Your task to perform on an android device: open sync settings in chrome Image 0: 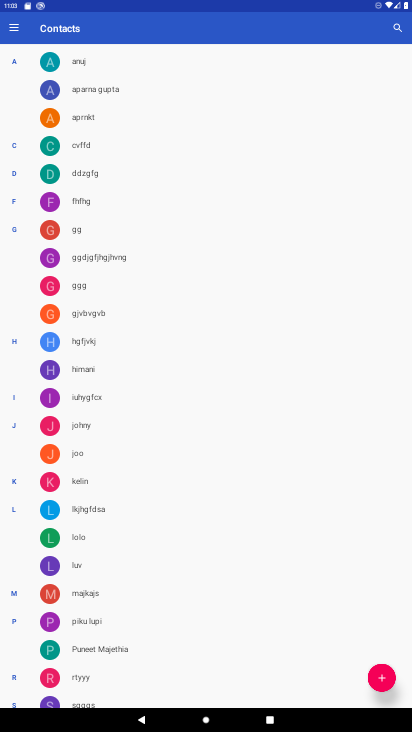
Step 0: press home button
Your task to perform on an android device: open sync settings in chrome Image 1: 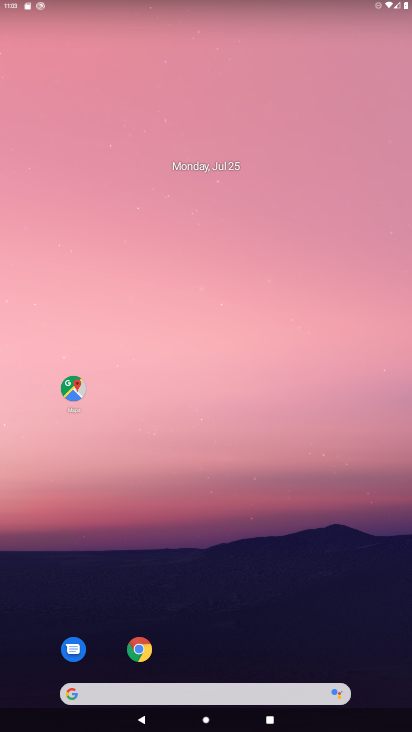
Step 1: click (143, 651)
Your task to perform on an android device: open sync settings in chrome Image 2: 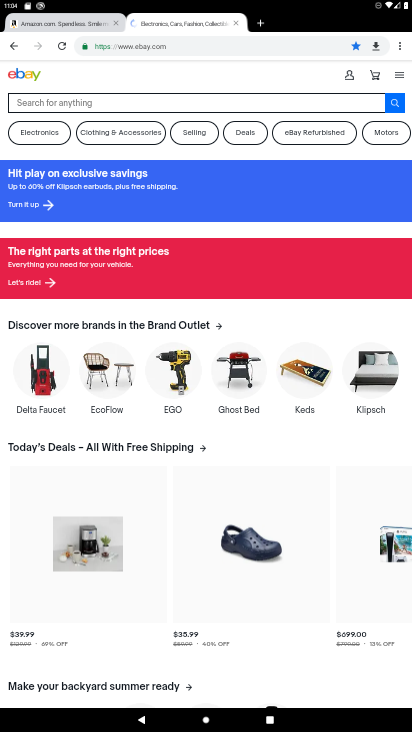
Step 2: click (397, 48)
Your task to perform on an android device: open sync settings in chrome Image 3: 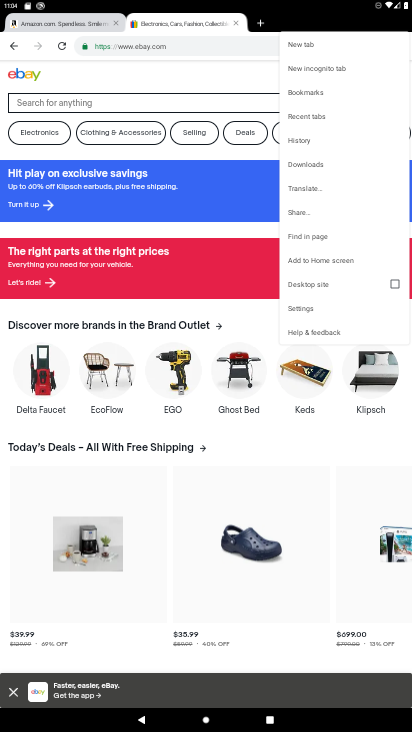
Step 3: click (304, 298)
Your task to perform on an android device: open sync settings in chrome Image 4: 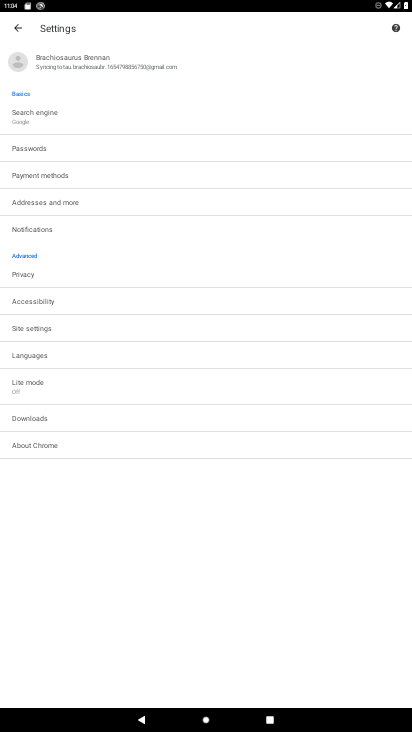
Step 4: click (68, 62)
Your task to perform on an android device: open sync settings in chrome Image 5: 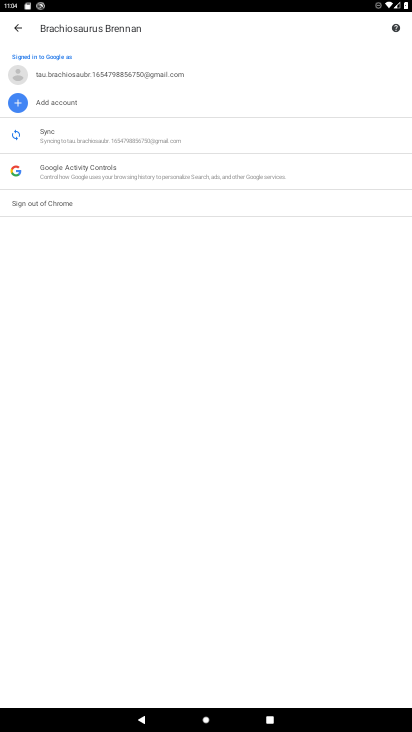
Step 5: click (40, 132)
Your task to perform on an android device: open sync settings in chrome Image 6: 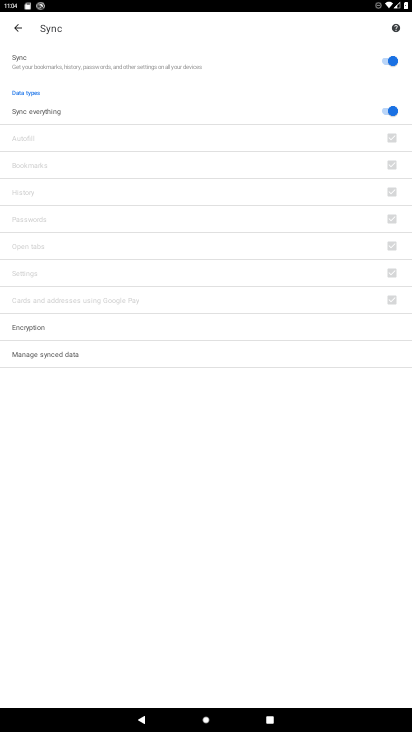
Step 6: task complete